Your task to perform on an android device: Go to ESPN.com Image 0: 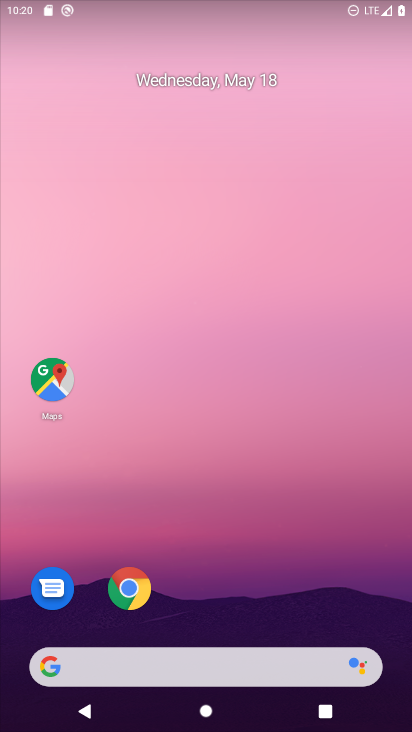
Step 0: click (129, 586)
Your task to perform on an android device: Go to ESPN.com Image 1: 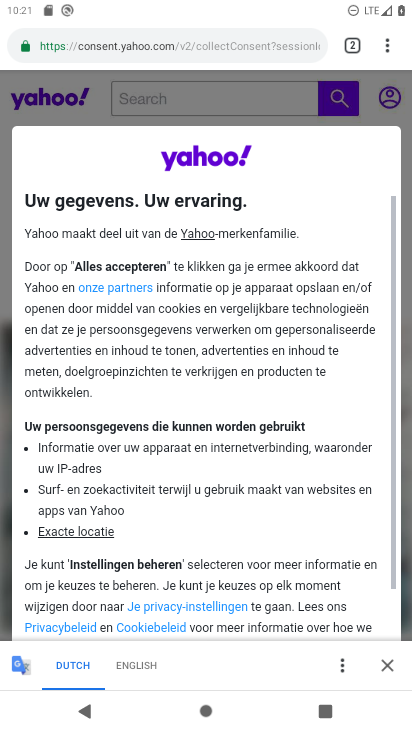
Step 1: click (82, 52)
Your task to perform on an android device: Go to ESPN.com Image 2: 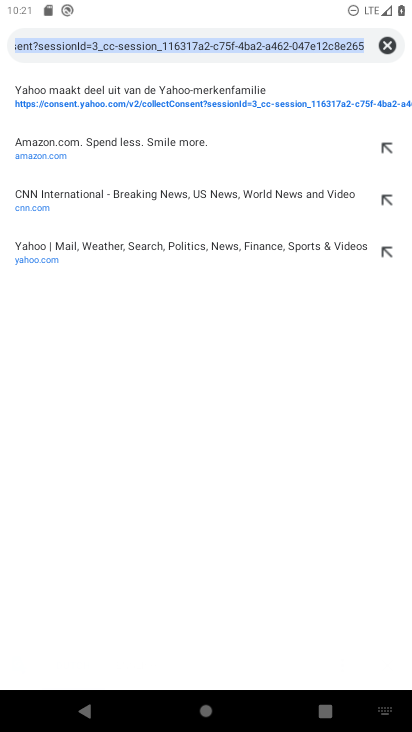
Step 2: click (389, 52)
Your task to perform on an android device: Go to ESPN.com Image 3: 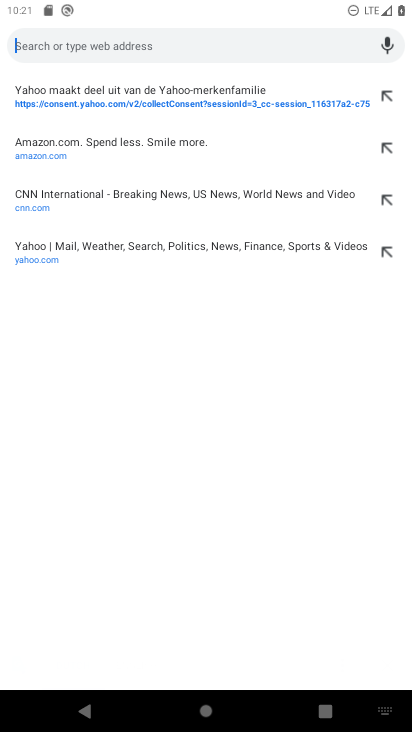
Step 3: type "espn.com"
Your task to perform on an android device: Go to ESPN.com Image 4: 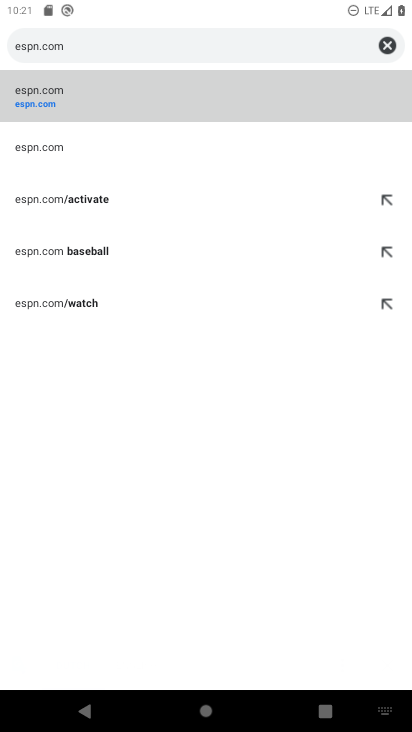
Step 4: click (14, 91)
Your task to perform on an android device: Go to ESPN.com Image 5: 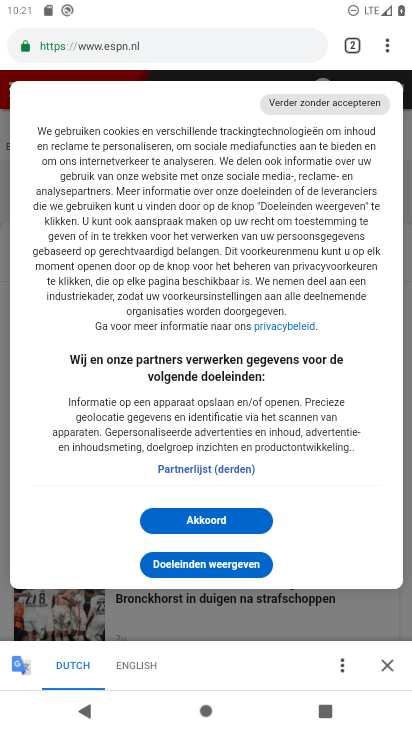
Step 5: task complete